Your task to perform on an android device: change notifications settings Image 0: 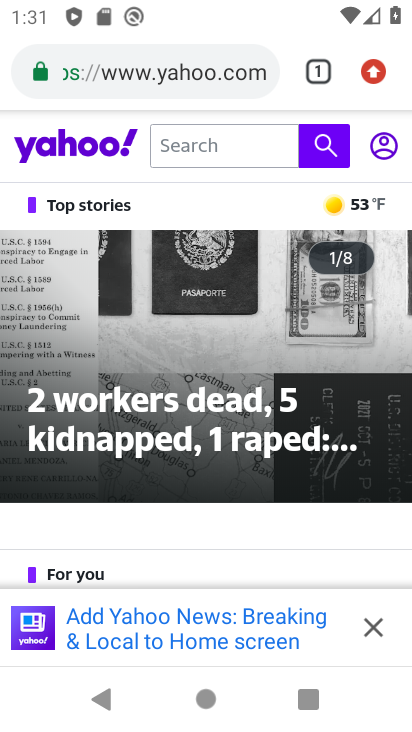
Step 0: press home button
Your task to perform on an android device: change notifications settings Image 1: 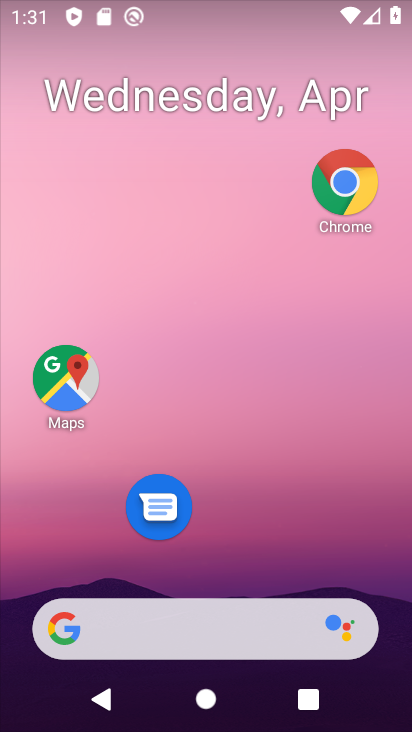
Step 1: click (212, 692)
Your task to perform on an android device: change notifications settings Image 2: 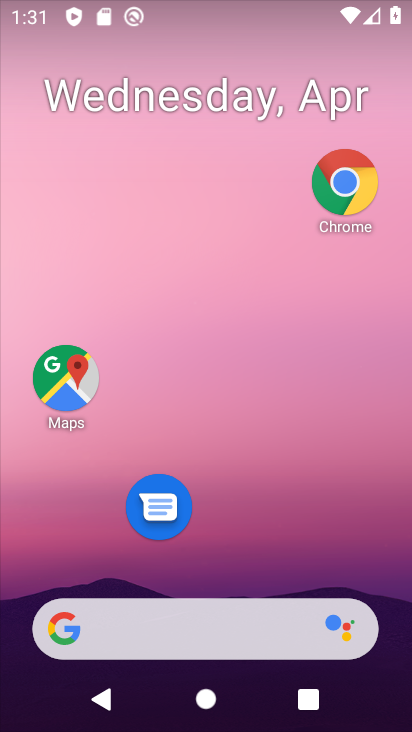
Step 2: drag from (240, 688) to (213, 18)
Your task to perform on an android device: change notifications settings Image 3: 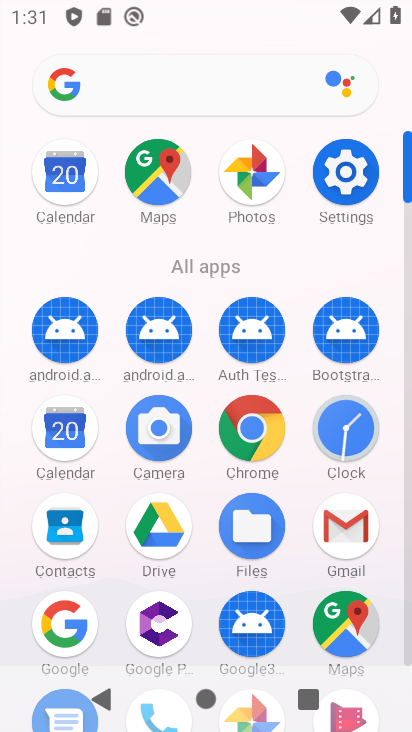
Step 3: click (341, 194)
Your task to perform on an android device: change notifications settings Image 4: 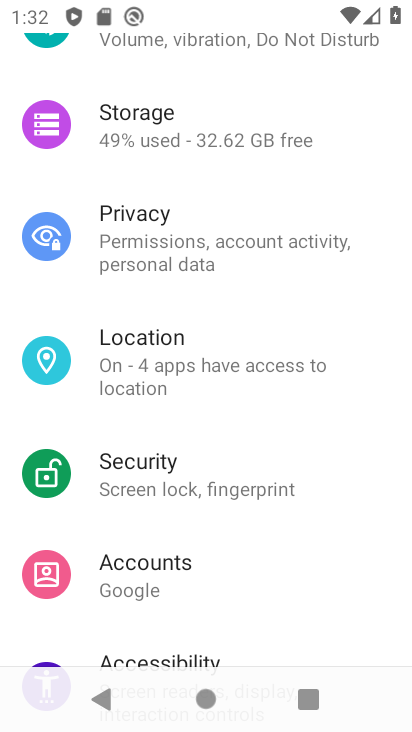
Step 4: drag from (327, 110) to (352, 632)
Your task to perform on an android device: change notifications settings Image 5: 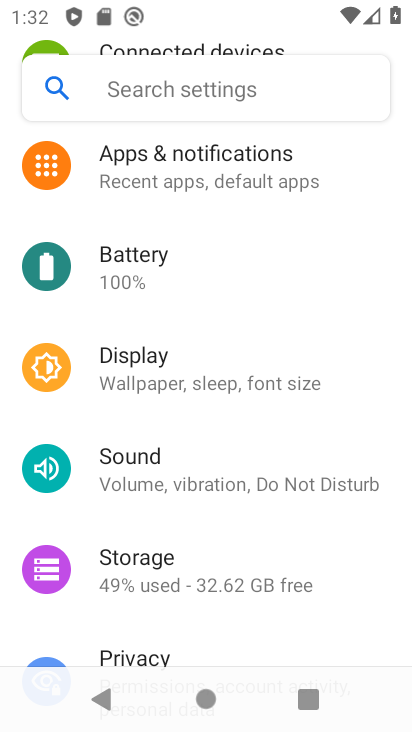
Step 5: click (299, 167)
Your task to perform on an android device: change notifications settings Image 6: 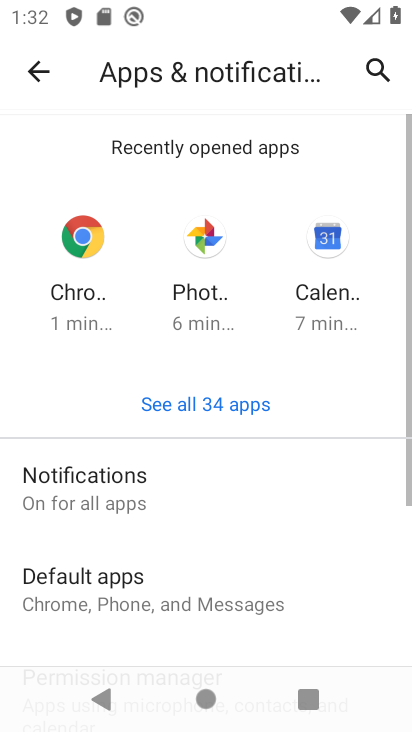
Step 6: click (163, 474)
Your task to perform on an android device: change notifications settings Image 7: 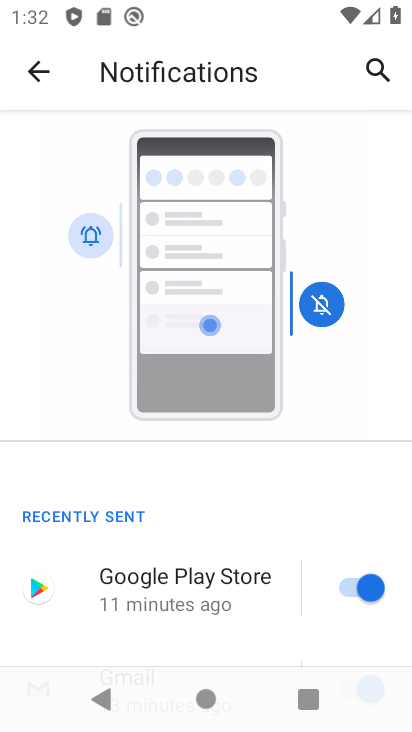
Step 7: drag from (310, 541) to (338, 21)
Your task to perform on an android device: change notifications settings Image 8: 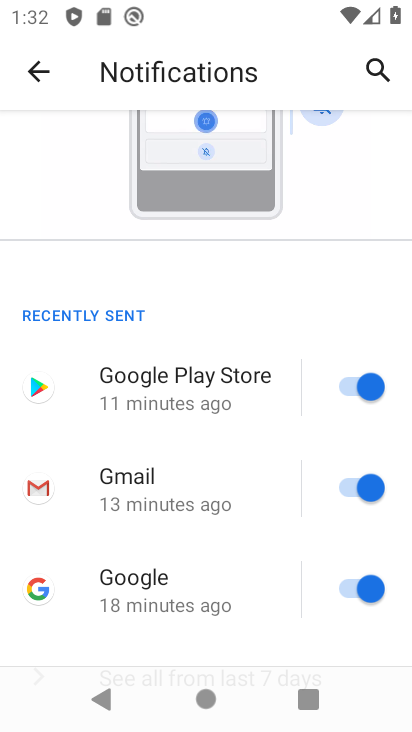
Step 8: drag from (286, 623) to (298, 2)
Your task to perform on an android device: change notifications settings Image 9: 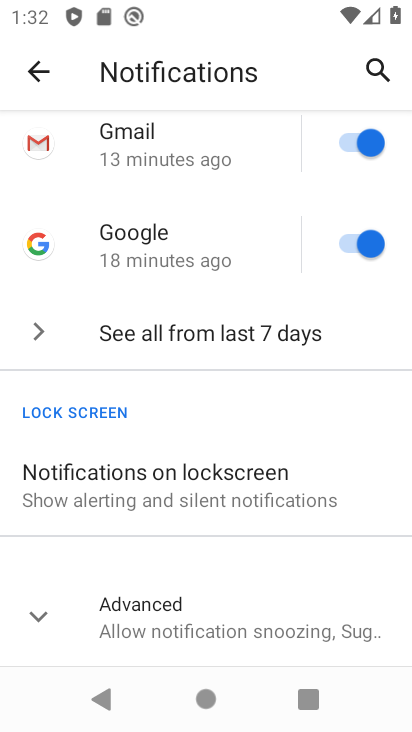
Step 9: click (374, 228)
Your task to perform on an android device: change notifications settings Image 10: 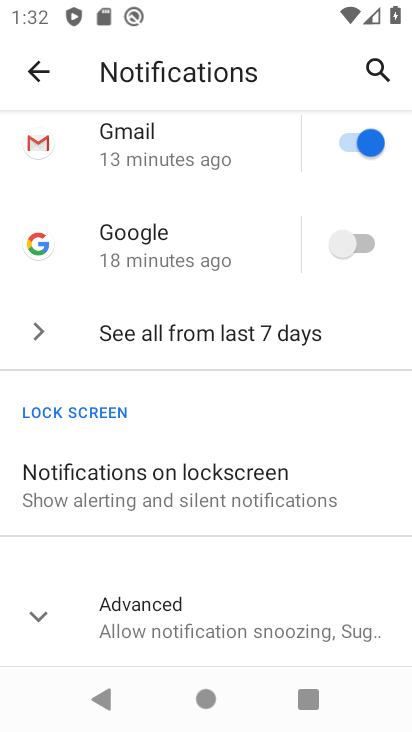
Step 10: task complete